Your task to perform on an android device: change notifications settings Image 0: 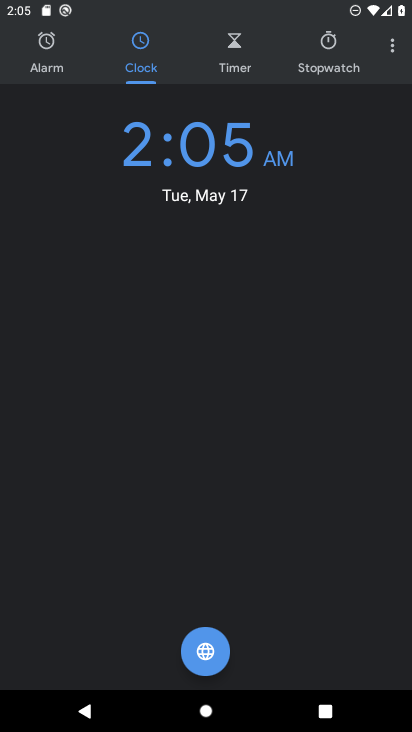
Step 0: press home button
Your task to perform on an android device: change notifications settings Image 1: 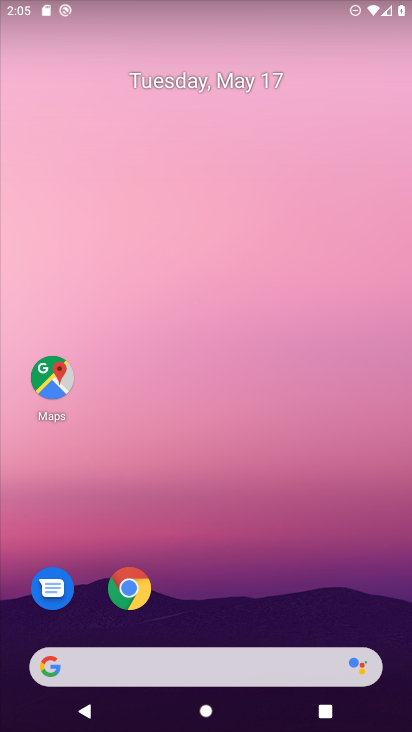
Step 1: drag from (77, 190) to (67, 141)
Your task to perform on an android device: change notifications settings Image 2: 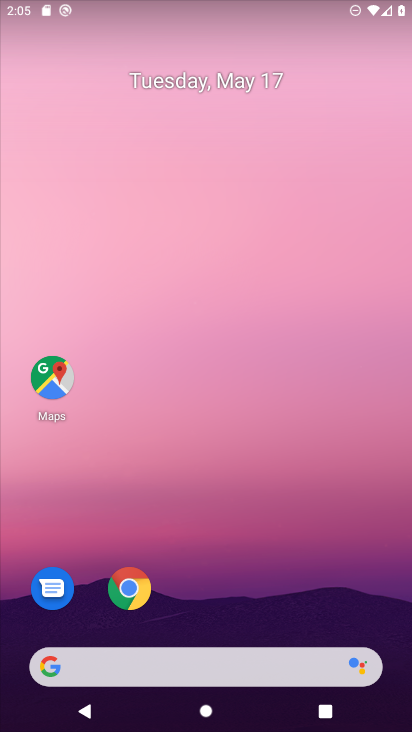
Step 2: drag from (222, 596) to (292, 71)
Your task to perform on an android device: change notifications settings Image 3: 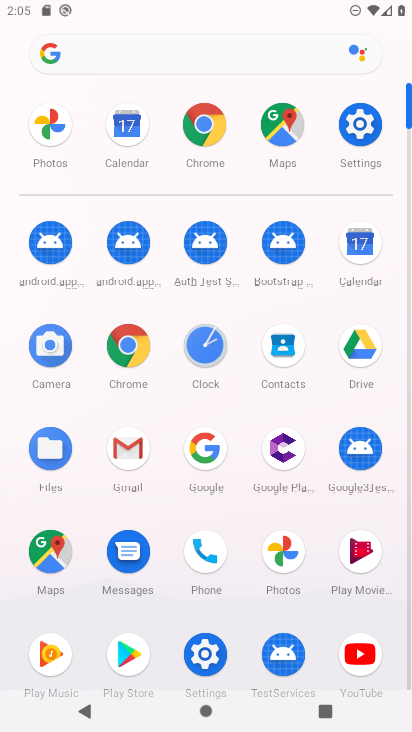
Step 3: click (366, 142)
Your task to perform on an android device: change notifications settings Image 4: 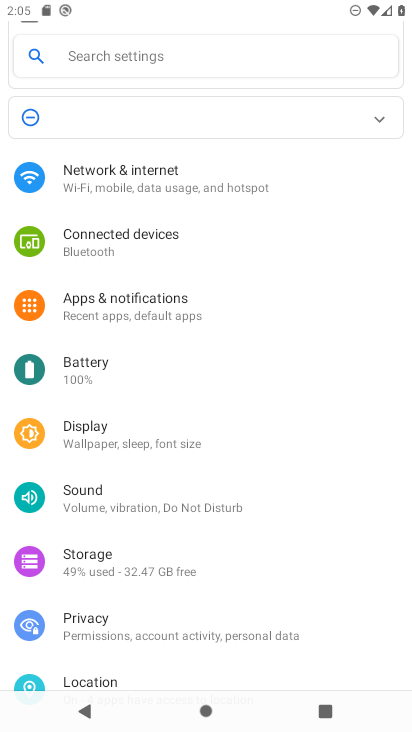
Step 4: click (146, 318)
Your task to perform on an android device: change notifications settings Image 5: 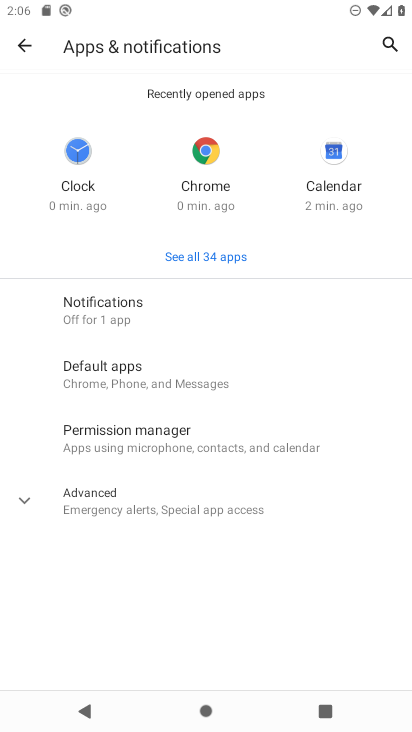
Step 5: click (133, 323)
Your task to perform on an android device: change notifications settings Image 6: 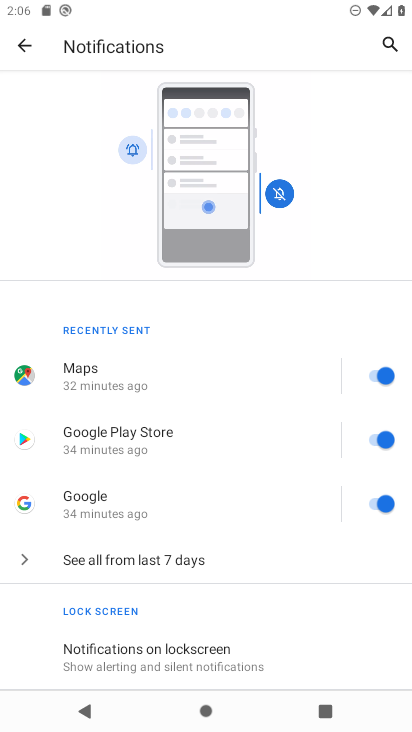
Step 6: click (381, 500)
Your task to perform on an android device: change notifications settings Image 7: 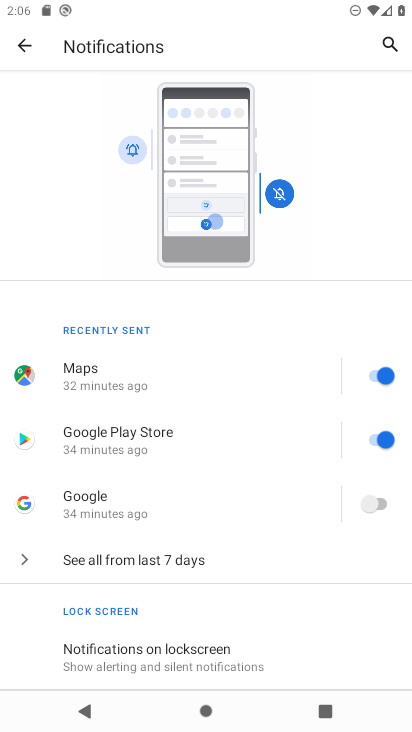
Step 7: click (384, 434)
Your task to perform on an android device: change notifications settings Image 8: 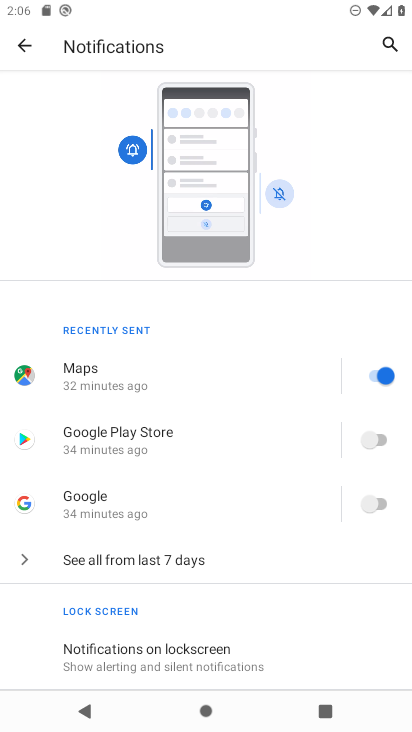
Step 8: click (376, 378)
Your task to perform on an android device: change notifications settings Image 9: 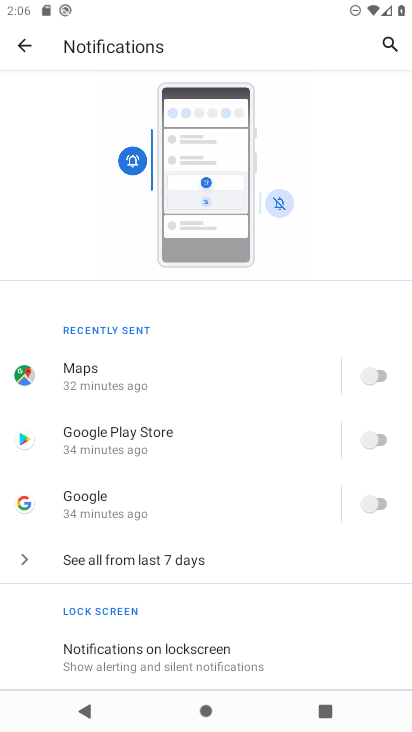
Step 9: task complete